Your task to perform on an android device: toggle location history Image 0: 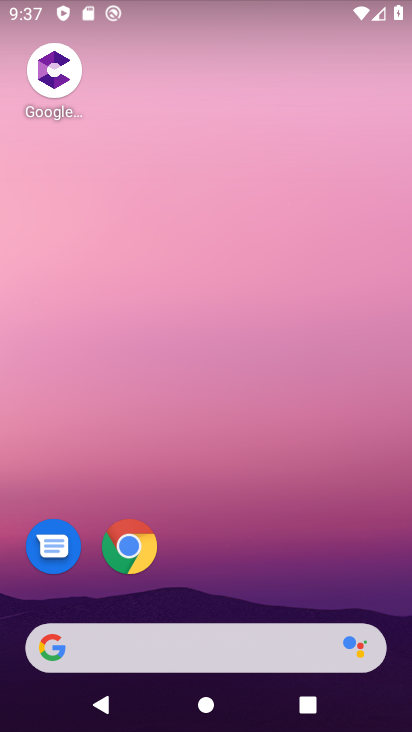
Step 0: drag from (301, 571) to (329, 79)
Your task to perform on an android device: toggle location history Image 1: 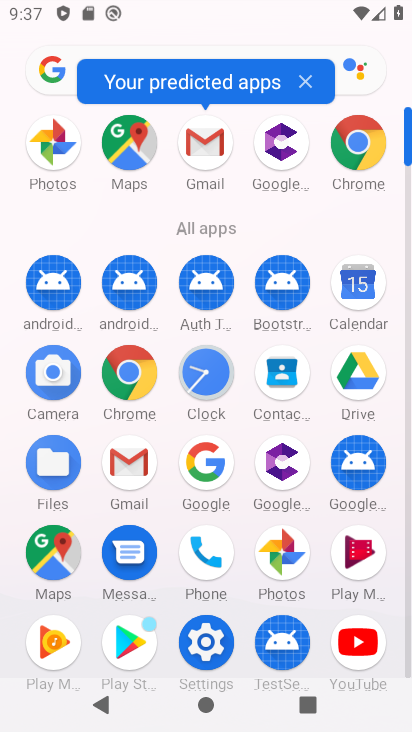
Step 1: click (193, 650)
Your task to perform on an android device: toggle location history Image 2: 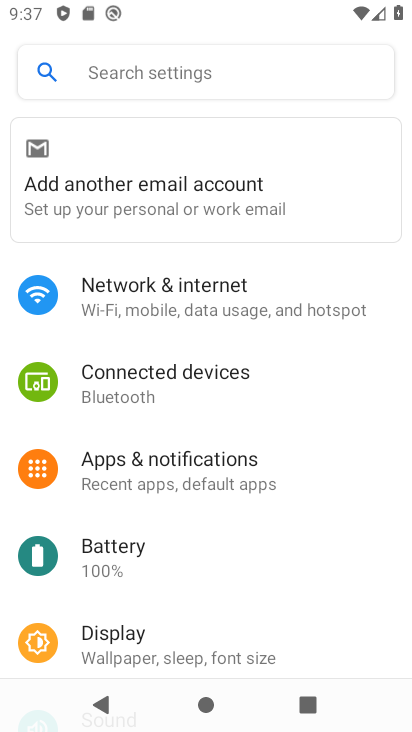
Step 2: drag from (190, 580) to (247, 102)
Your task to perform on an android device: toggle location history Image 3: 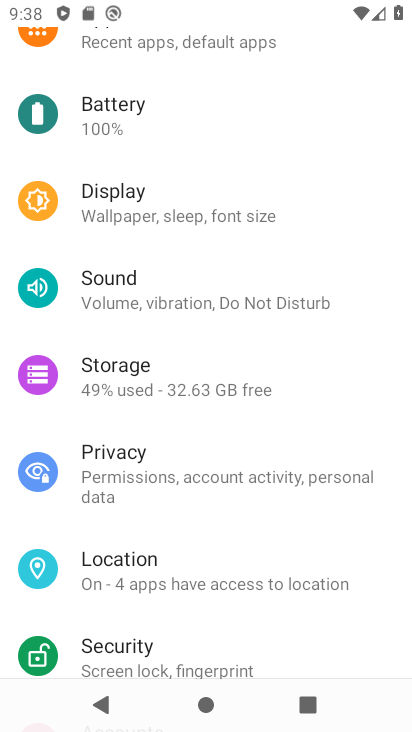
Step 3: click (226, 549)
Your task to perform on an android device: toggle location history Image 4: 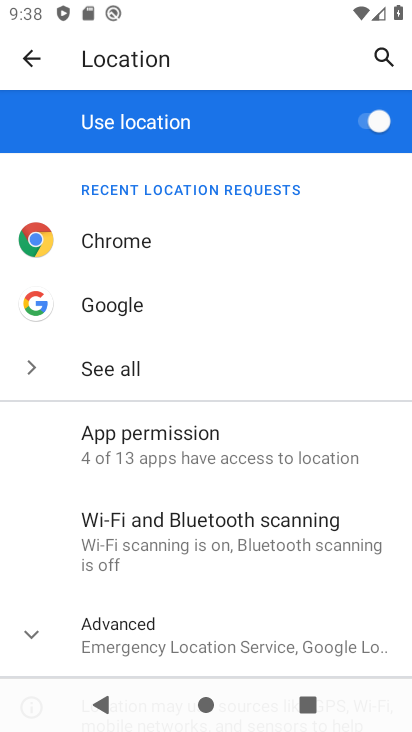
Step 4: drag from (232, 556) to (227, 133)
Your task to perform on an android device: toggle location history Image 5: 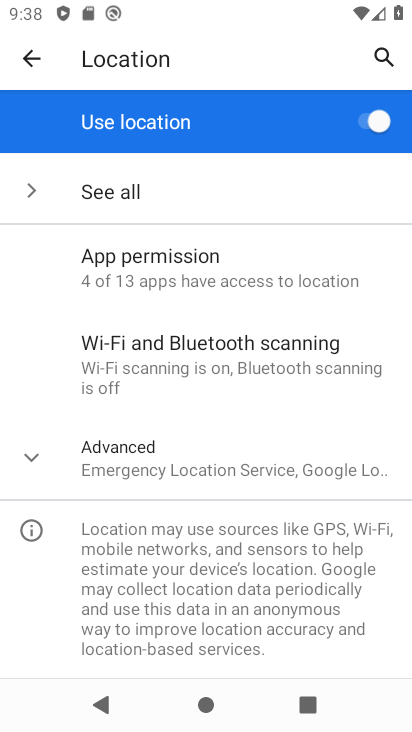
Step 5: click (183, 476)
Your task to perform on an android device: toggle location history Image 6: 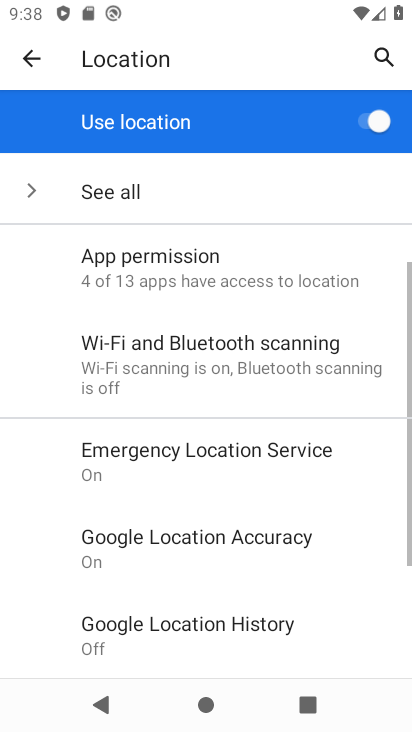
Step 6: drag from (357, 659) to (324, 363)
Your task to perform on an android device: toggle location history Image 7: 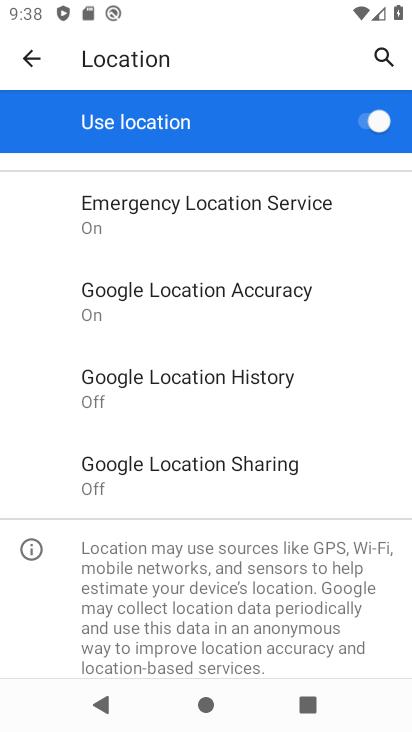
Step 7: click (232, 385)
Your task to perform on an android device: toggle location history Image 8: 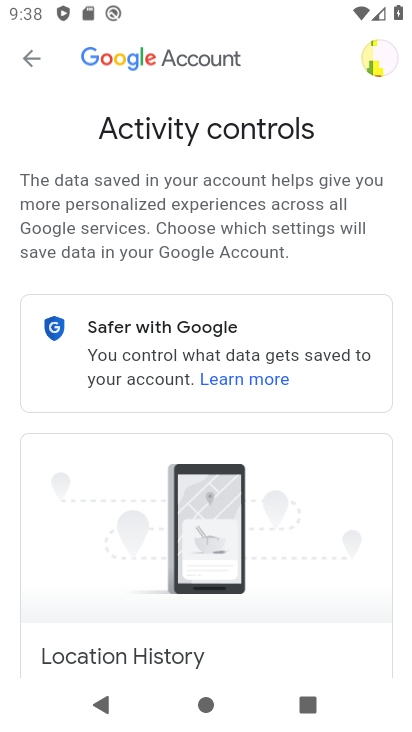
Step 8: drag from (302, 520) to (208, 153)
Your task to perform on an android device: toggle location history Image 9: 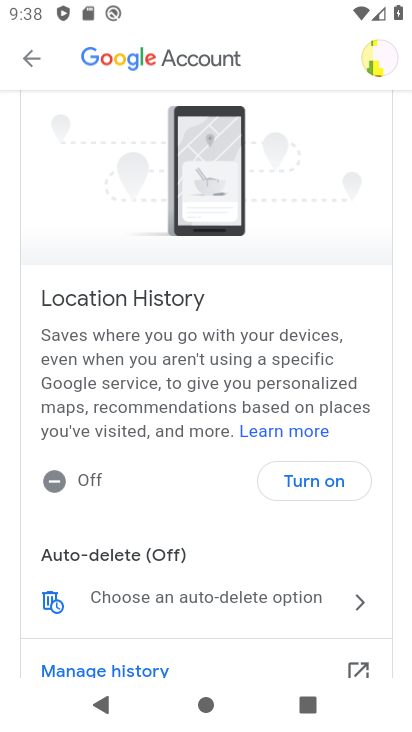
Step 9: click (327, 499)
Your task to perform on an android device: toggle location history Image 10: 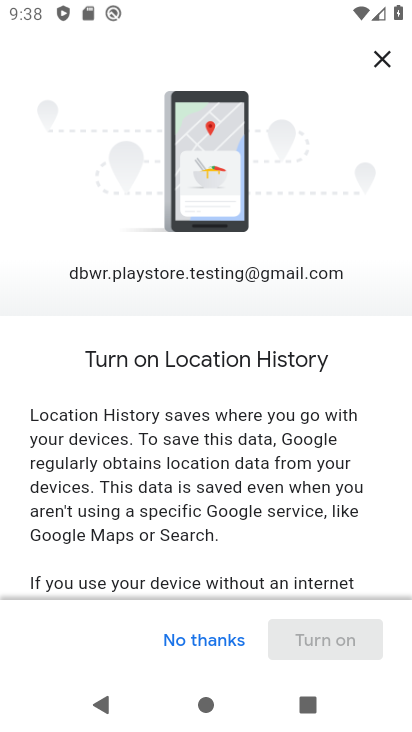
Step 10: drag from (302, 507) to (243, 97)
Your task to perform on an android device: toggle location history Image 11: 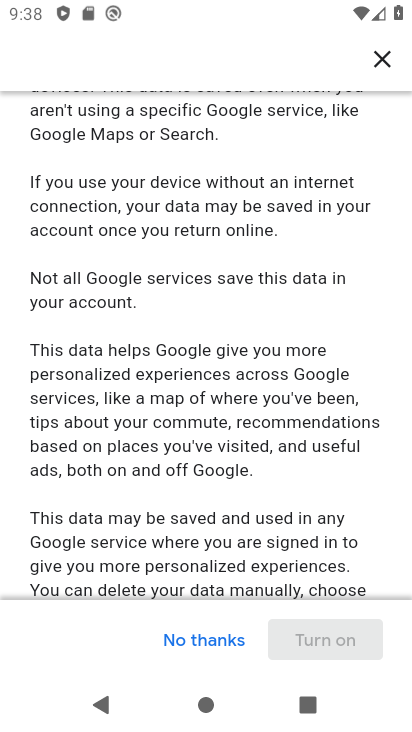
Step 11: drag from (194, 486) to (209, 3)
Your task to perform on an android device: toggle location history Image 12: 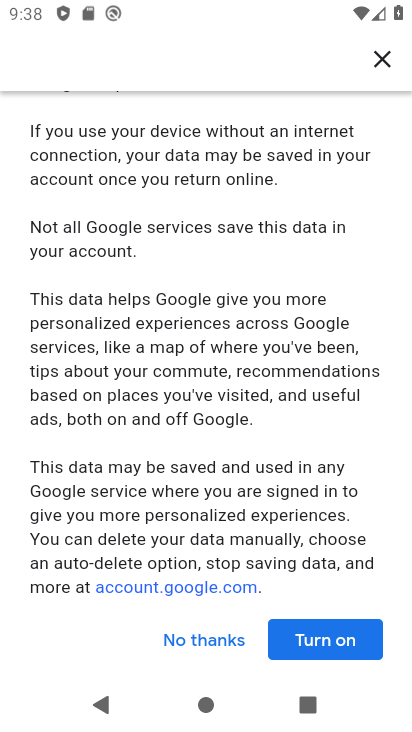
Step 12: click (311, 625)
Your task to perform on an android device: toggle location history Image 13: 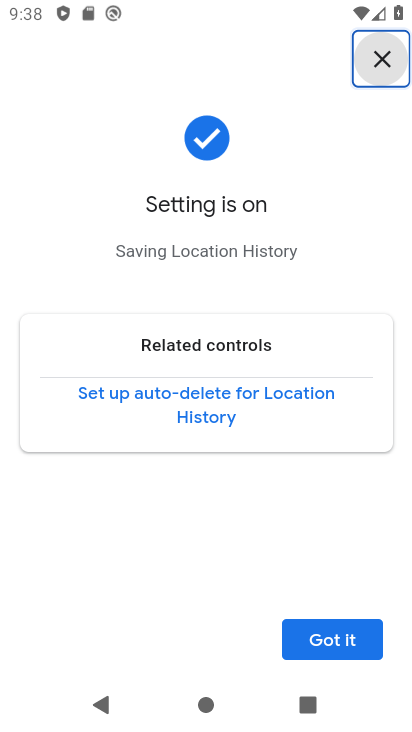
Step 13: task complete